Your task to perform on an android device: stop showing notifications on the lock screen Image 0: 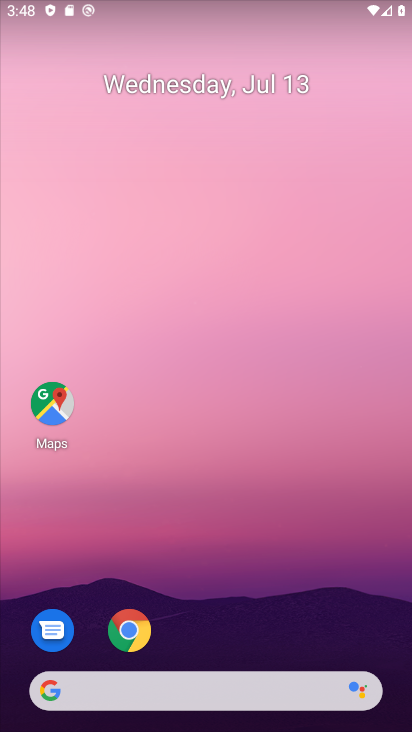
Step 0: press home button
Your task to perform on an android device: stop showing notifications on the lock screen Image 1: 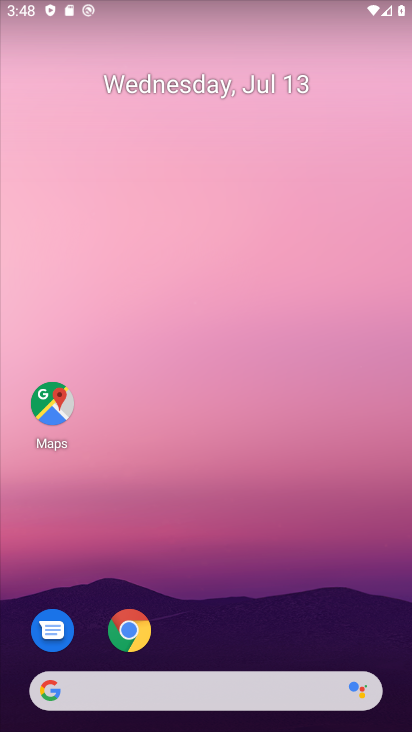
Step 1: drag from (252, 652) to (339, 172)
Your task to perform on an android device: stop showing notifications on the lock screen Image 2: 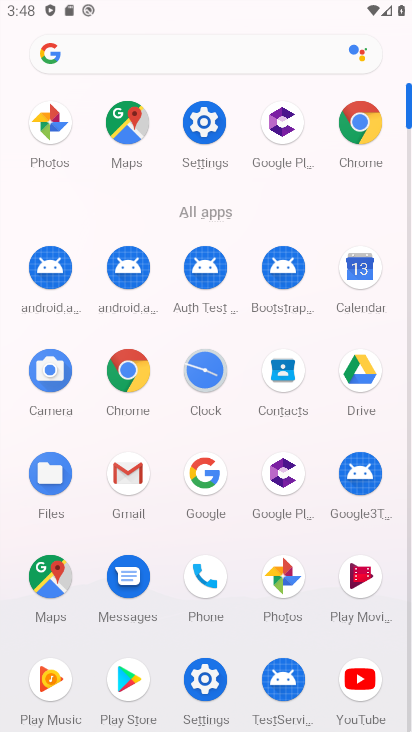
Step 2: click (206, 126)
Your task to perform on an android device: stop showing notifications on the lock screen Image 3: 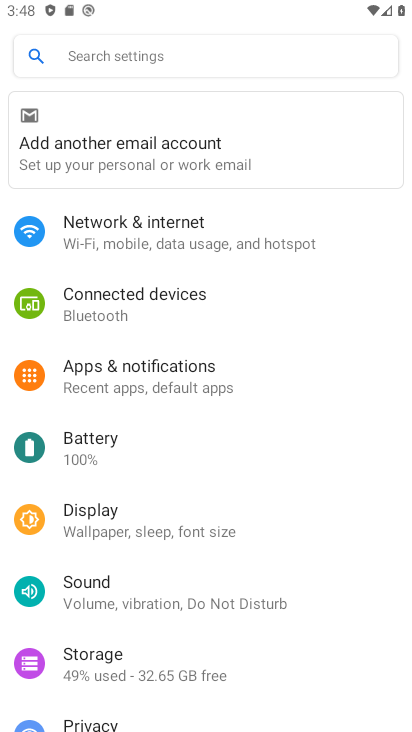
Step 3: click (108, 378)
Your task to perform on an android device: stop showing notifications on the lock screen Image 4: 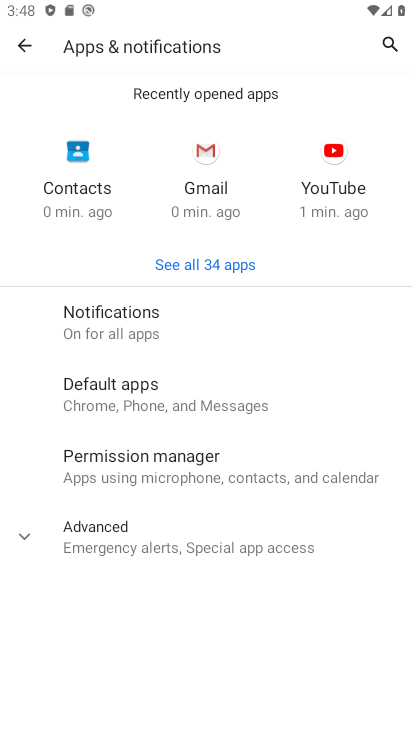
Step 4: click (122, 333)
Your task to perform on an android device: stop showing notifications on the lock screen Image 5: 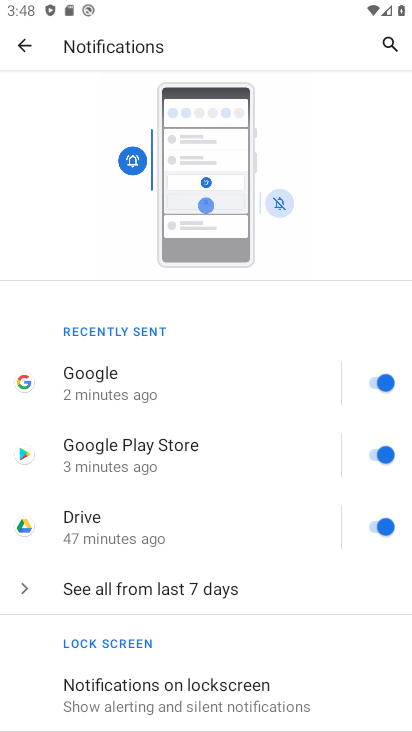
Step 5: drag from (290, 652) to (303, 185)
Your task to perform on an android device: stop showing notifications on the lock screen Image 6: 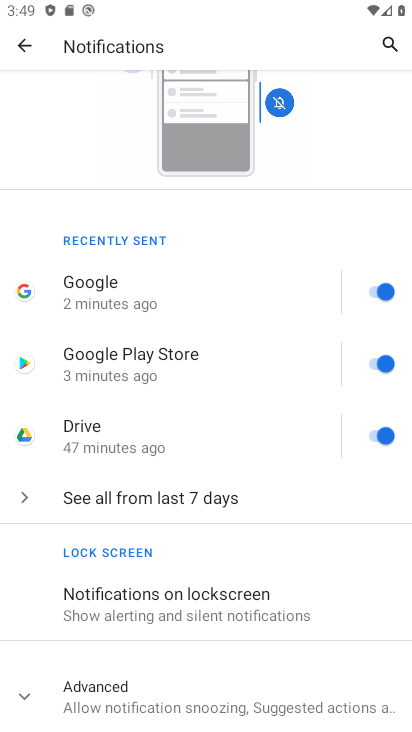
Step 6: click (148, 606)
Your task to perform on an android device: stop showing notifications on the lock screen Image 7: 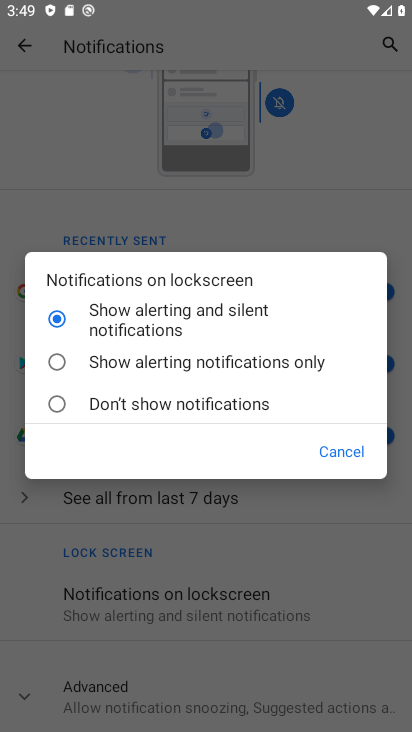
Step 7: click (61, 409)
Your task to perform on an android device: stop showing notifications on the lock screen Image 8: 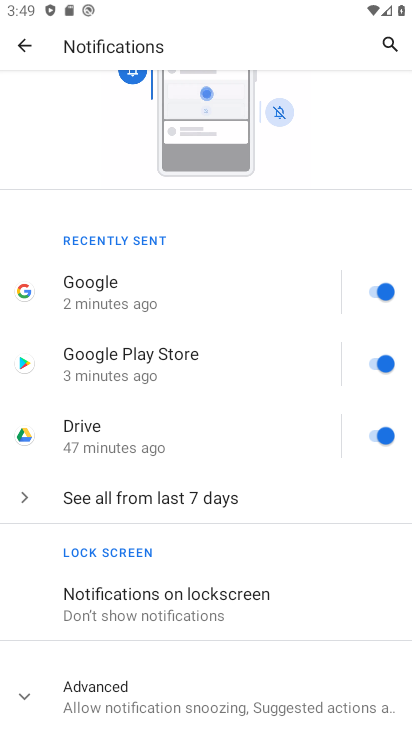
Step 8: task complete